Your task to perform on an android device: What's the latest news in space? Image 0: 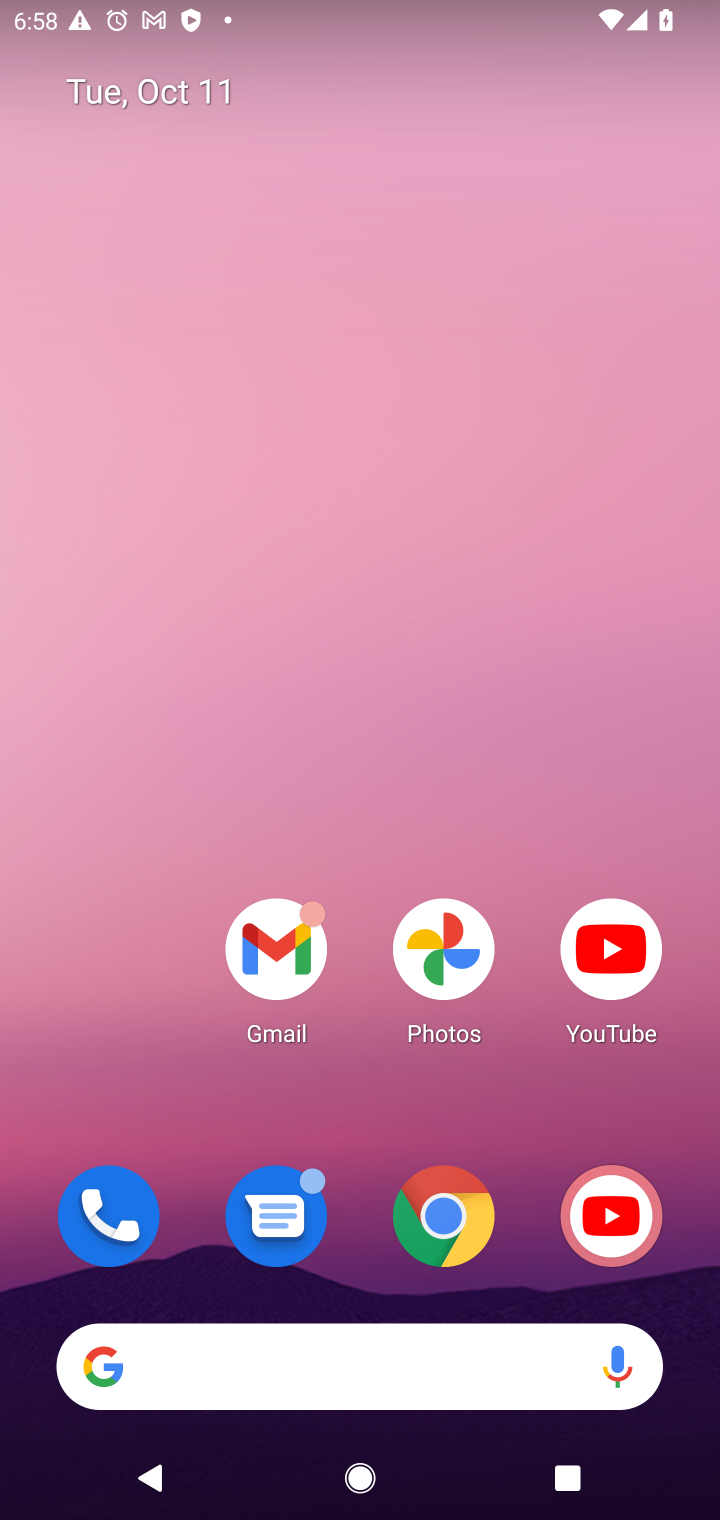
Step 0: click (447, 1247)
Your task to perform on an android device: What's the latest news in space? Image 1: 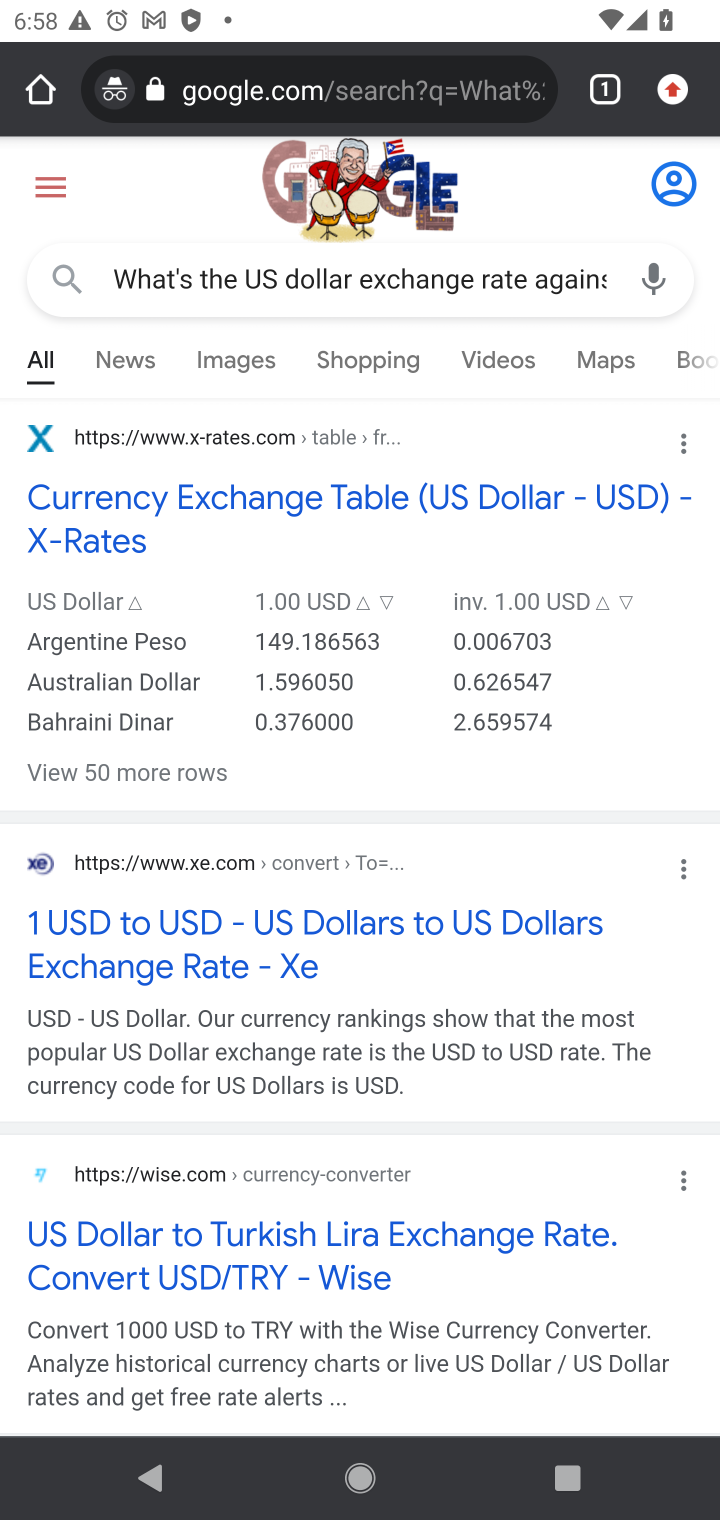
Step 1: click (418, 297)
Your task to perform on an android device: What's the latest news in space? Image 2: 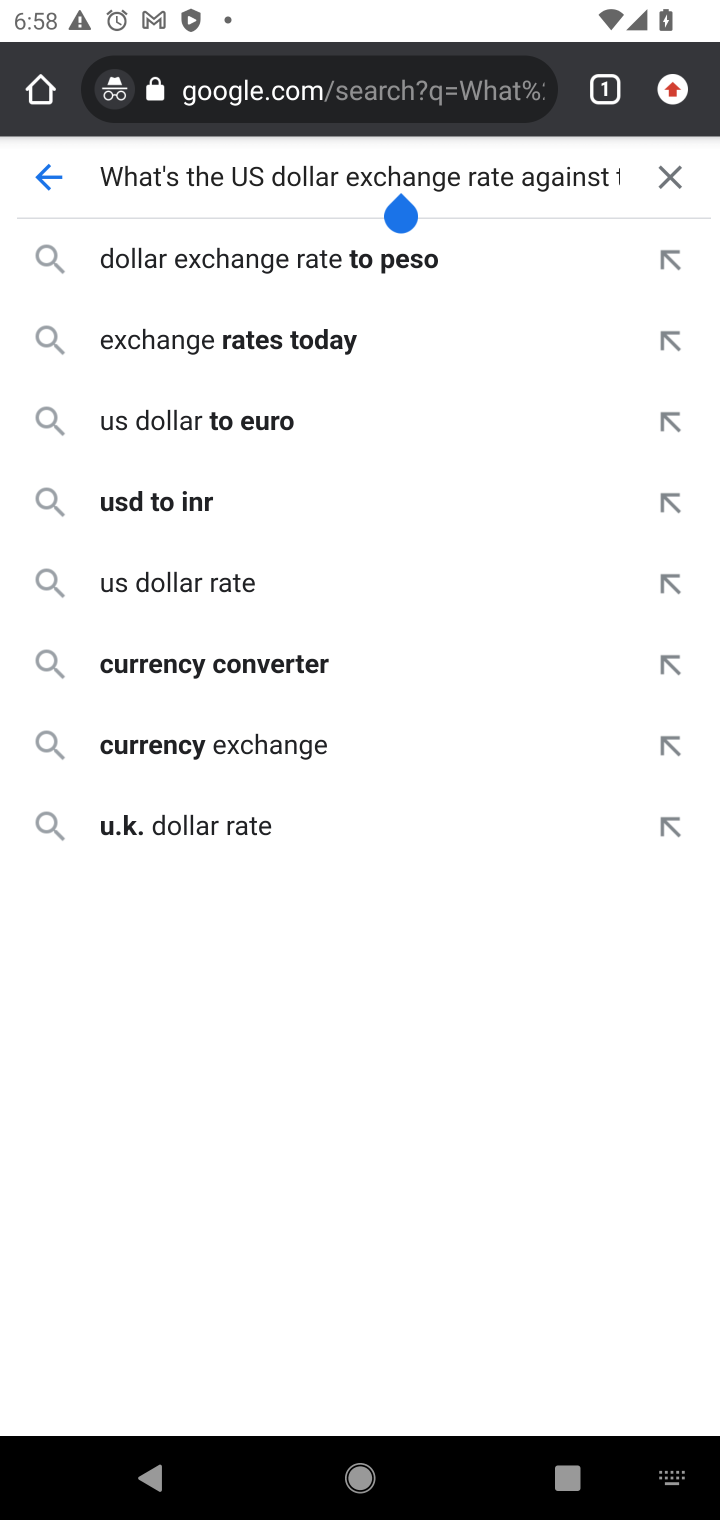
Step 2: click (651, 176)
Your task to perform on an android device: What's the latest news in space? Image 3: 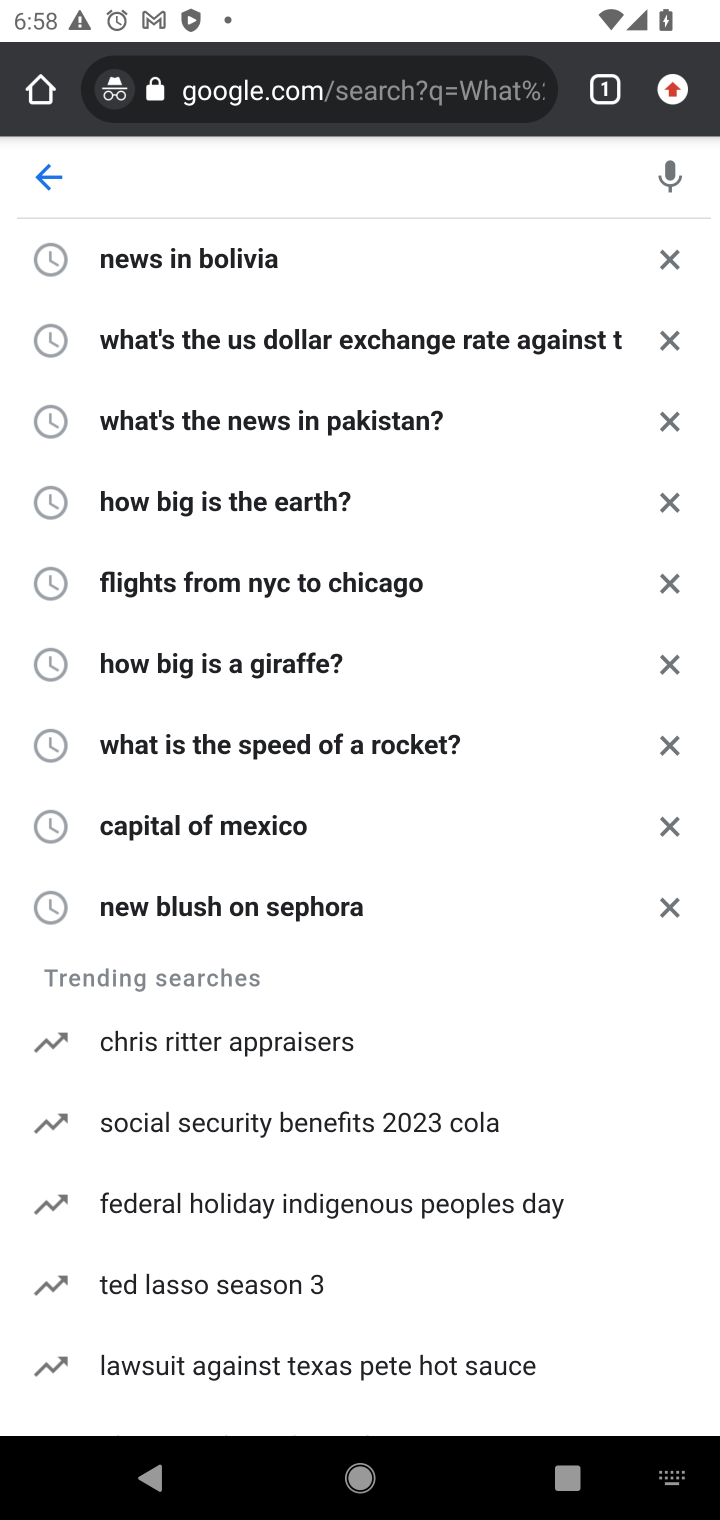
Step 3: type "latest news in space"
Your task to perform on an android device: What's the latest news in space? Image 4: 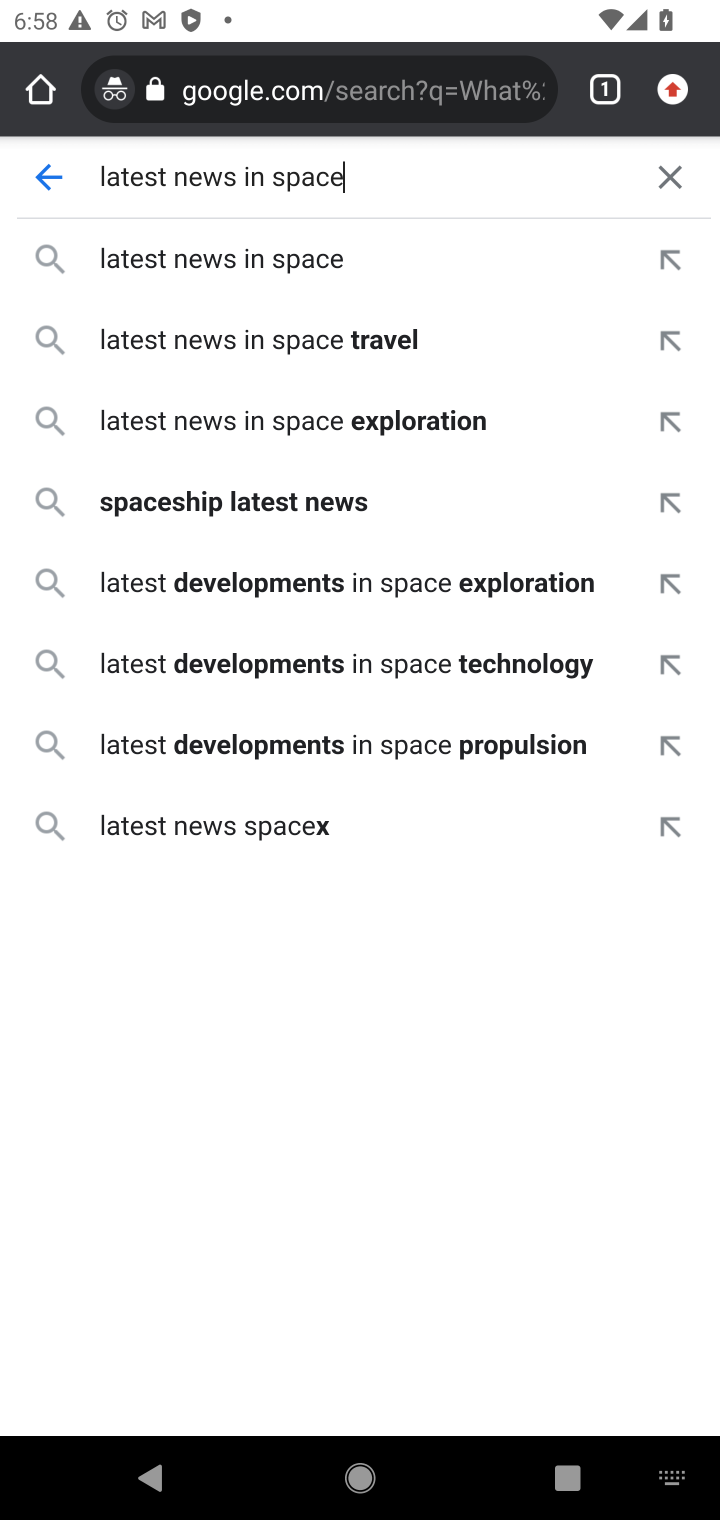
Step 4: click (196, 265)
Your task to perform on an android device: What's the latest news in space? Image 5: 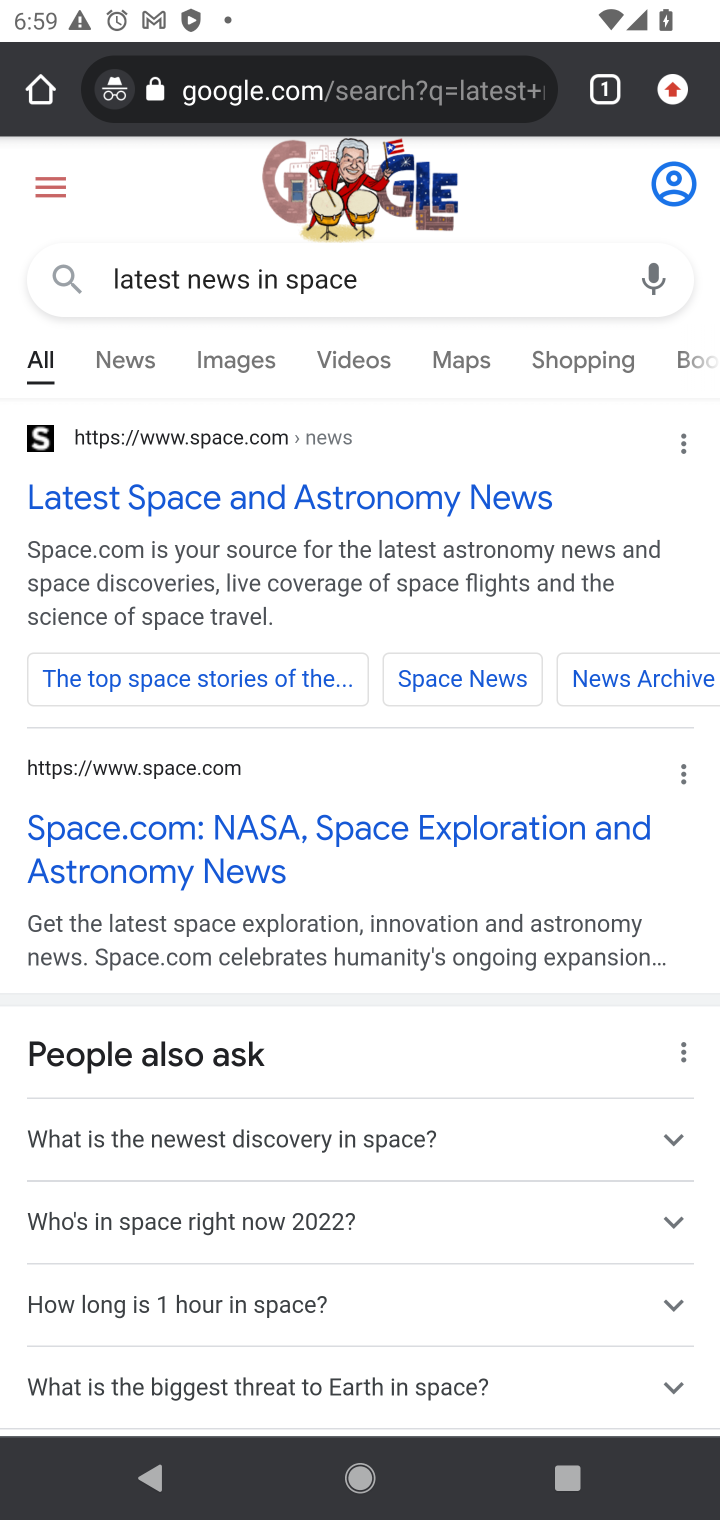
Step 5: click (127, 354)
Your task to perform on an android device: What's the latest news in space? Image 6: 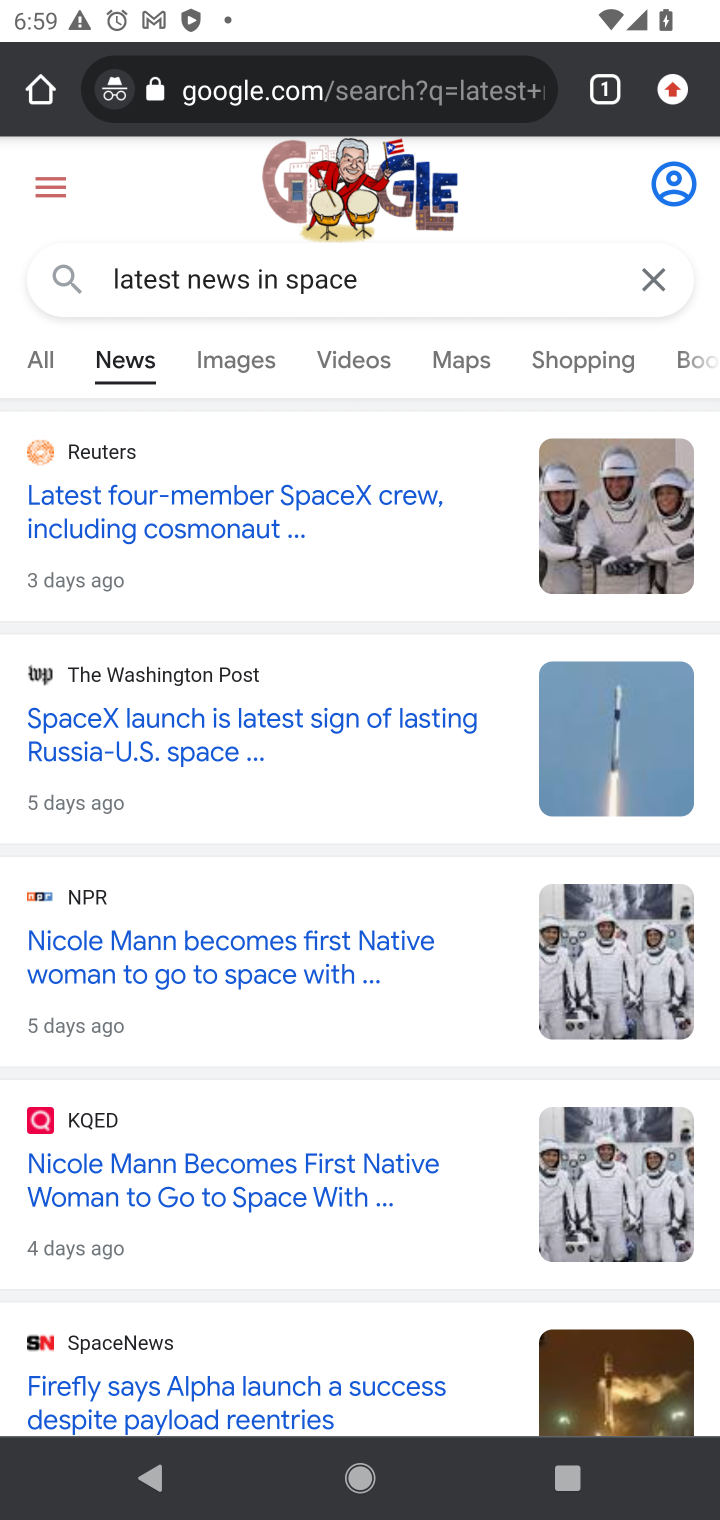
Step 6: task complete